Your task to perform on an android device: Open Chrome and go to settings Image 0: 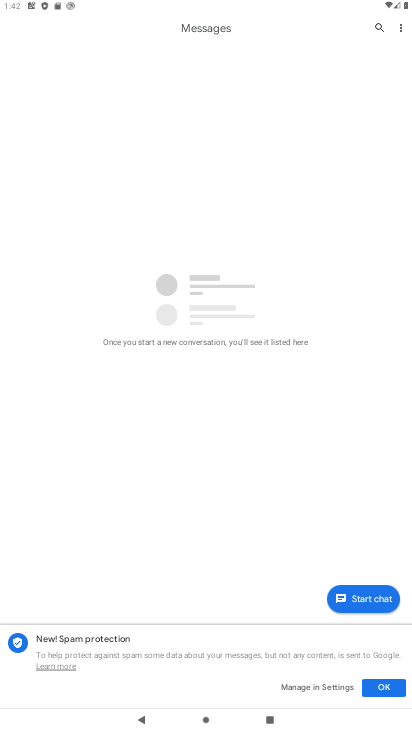
Step 0: press home button
Your task to perform on an android device: Open Chrome and go to settings Image 1: 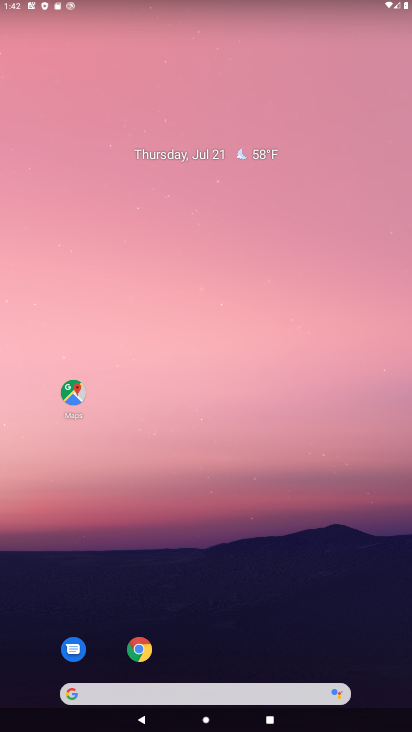
Step 1: click (145, 649)
Your task to perform on an android device: Open Chrome and go to settings Image 2: 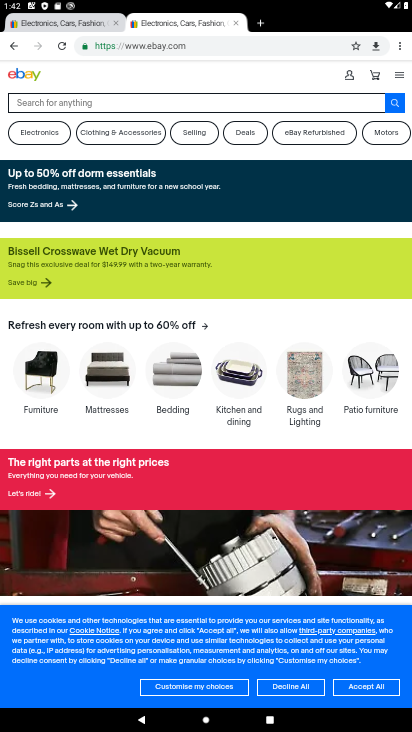
Step 2: click (404, 46)
Your task to perform on an android device: Open Chrome and go to settings Image 3: 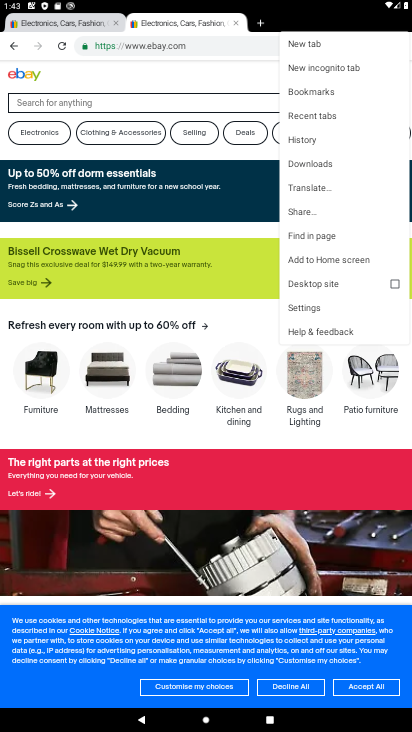
Step 3: click (307, 313)
Your task to perform on an android device: Open Chrome and go to settings Image 4: 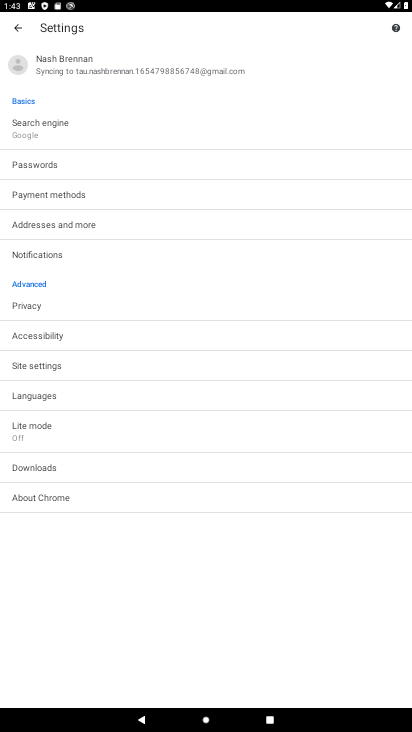
Step 4: task complete